Your task to perform on an android device: change the clock style Image 0: 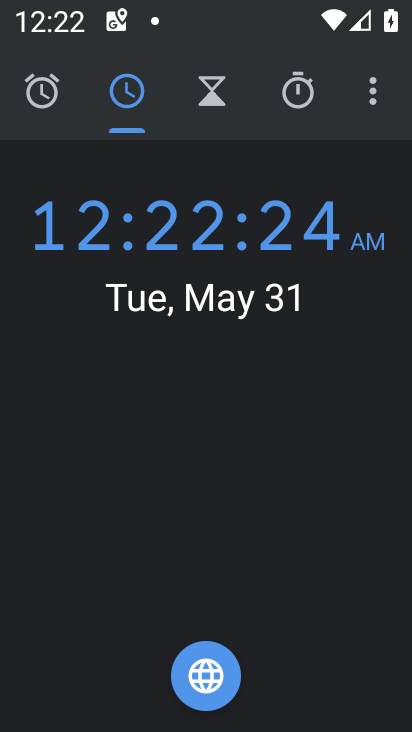
Step 0: click (373, 86)
Your task to perform on an android device: change the clock style Image 1: 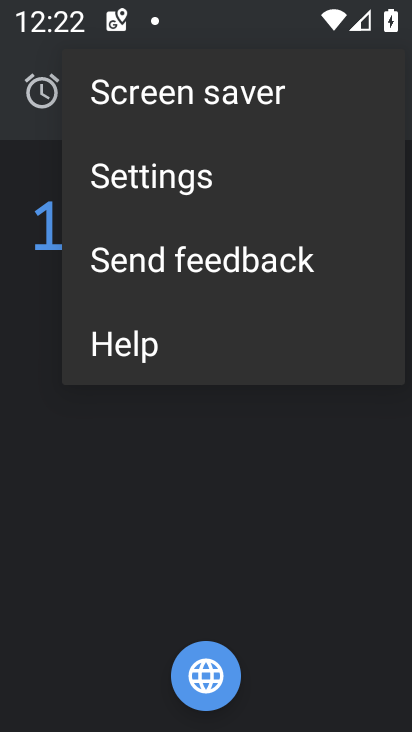
Step 1: click (175, 181)
Your task to perform on an android device: change the clock style Image 2: 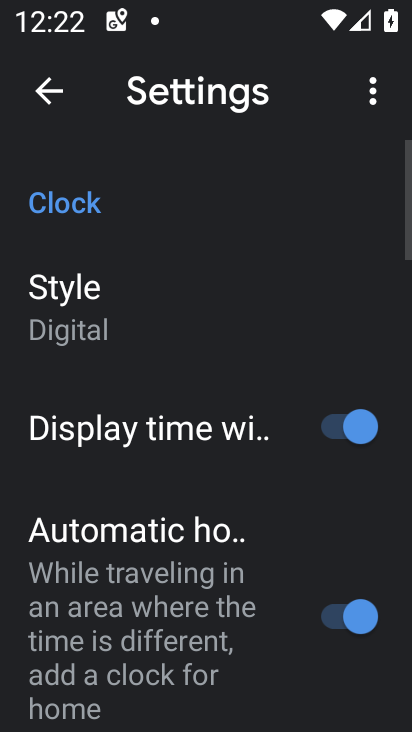
Step 2: click (111, 296)
Your task to perform on an android device: change the clock style Image 3: 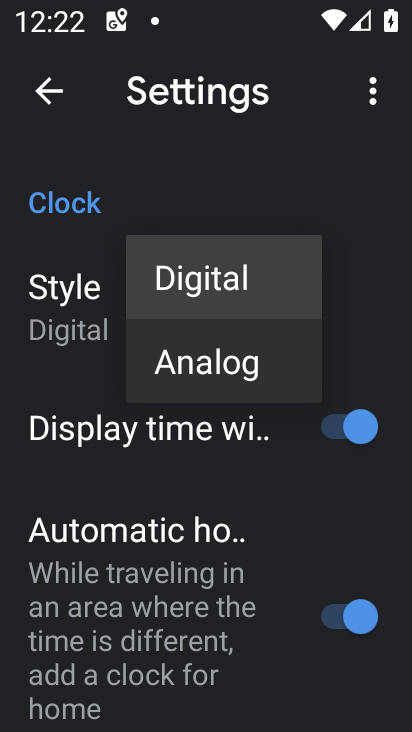
Step 3: click (211, 351)
Your task to perform on an android device: change the clock style Image 4: 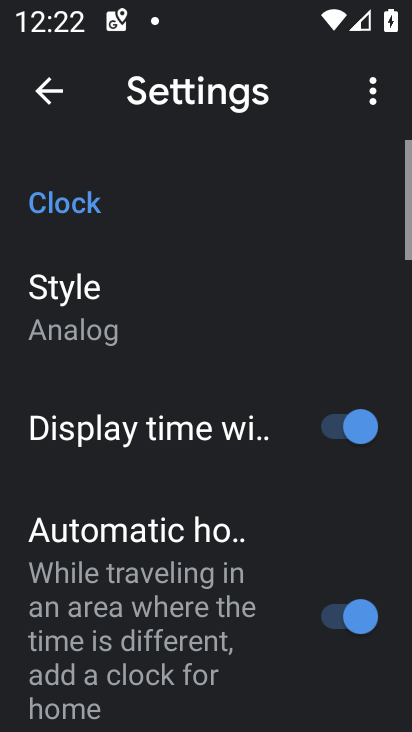
Step 4: task complete